Your task to perform on an android device: toggle airplane mode Image 0: 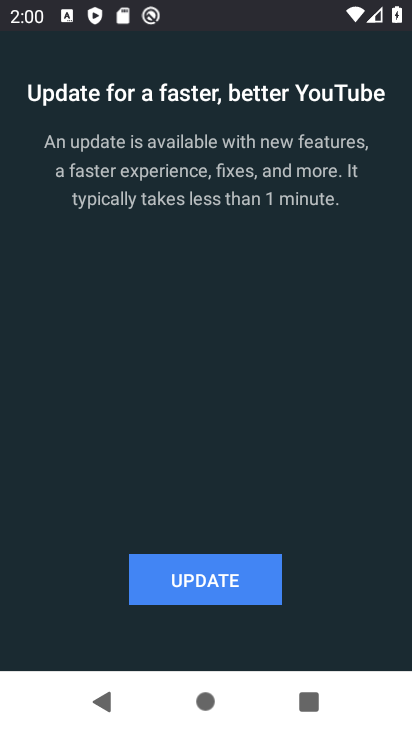
Step 0: press home button
Your task to perform on an android device: toggle airplane mode Image 1: 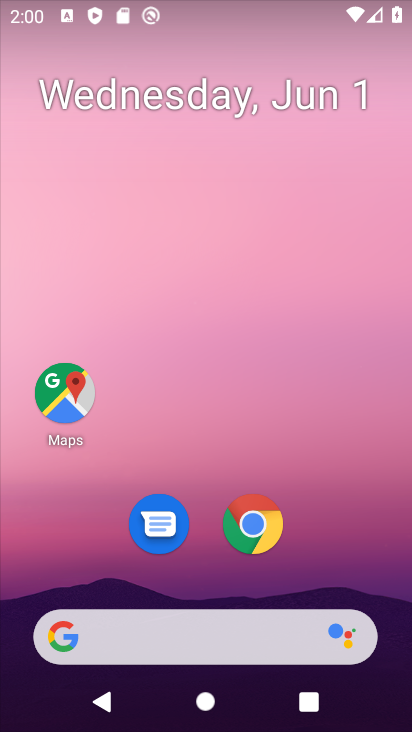
Step 1: drag from (237, 419) to (244, 35)
Your task to perform on an android device: toggle airplane mode Image 2: 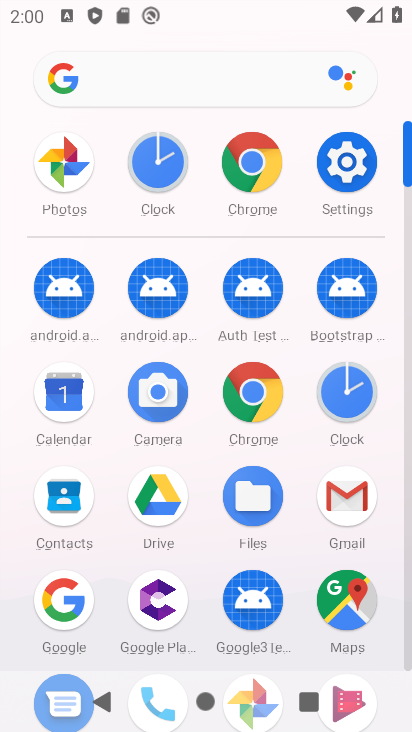
Step 2: click (335, 163)
Your task to perform on an android device: toggle airplane mode Image 3: 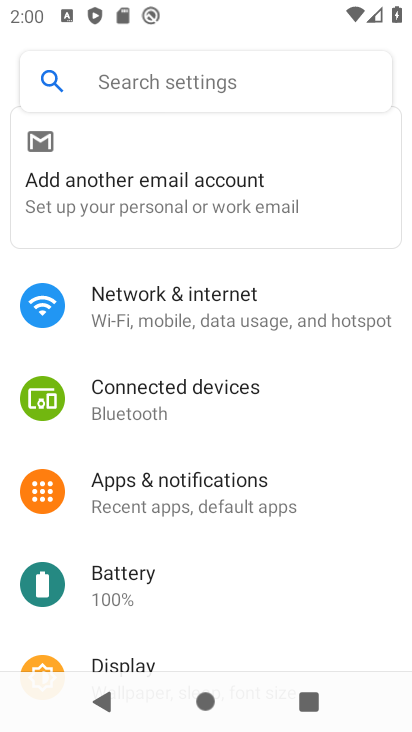
Step 3: click (276, 305)
Your task to perform on an android device: toggle airplane mode Image 4: 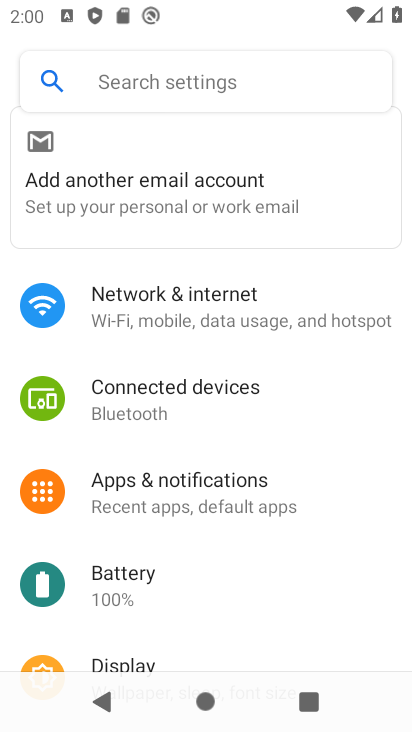
Step 4: click (275, 298)
Your task to perform on an android device: toggle airplane mode Image 5: 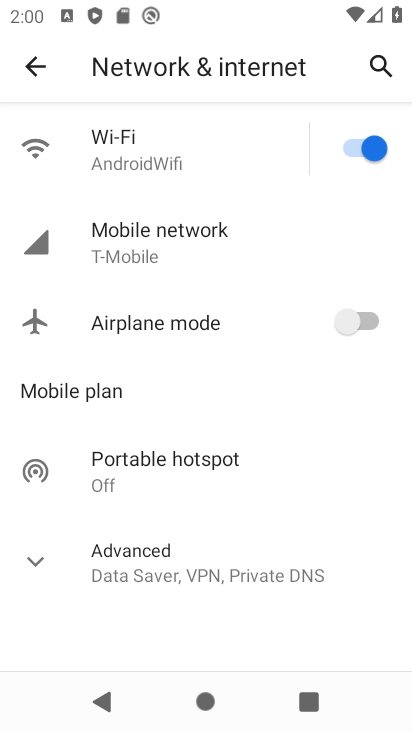
Step 5: click (359, 320)
Your task to perform on an android device: toggle airplane mode Image 6: 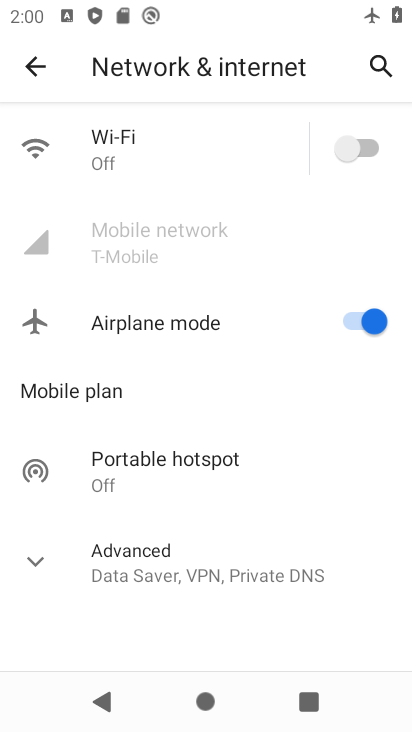
Step 6: task complete